Your task to perform on an android device: Go to sound settings Image 0: 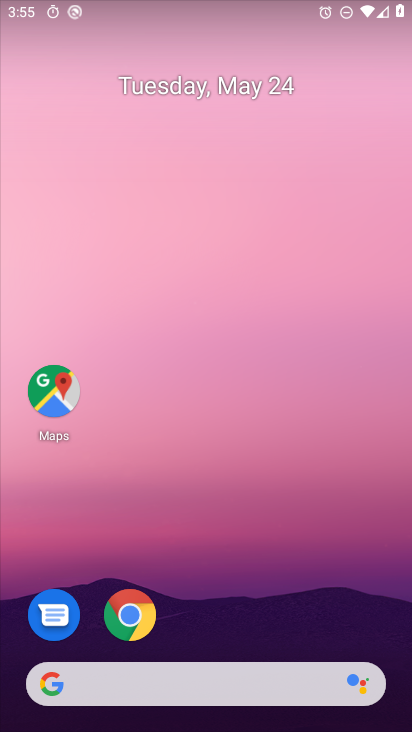
Step 0: drag from (223, 601) to (224, 279)
Your task to perform on an android device: Go to sound settings Image 1: 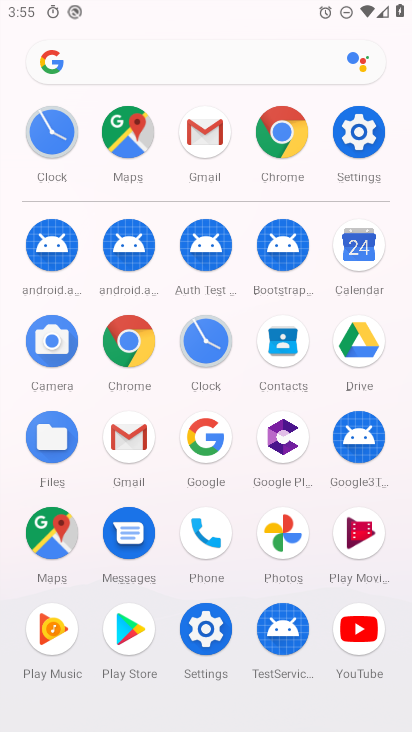
Step 1: click (368, 136)
Your task to perform on an android device: Go to sound settings Image 2: 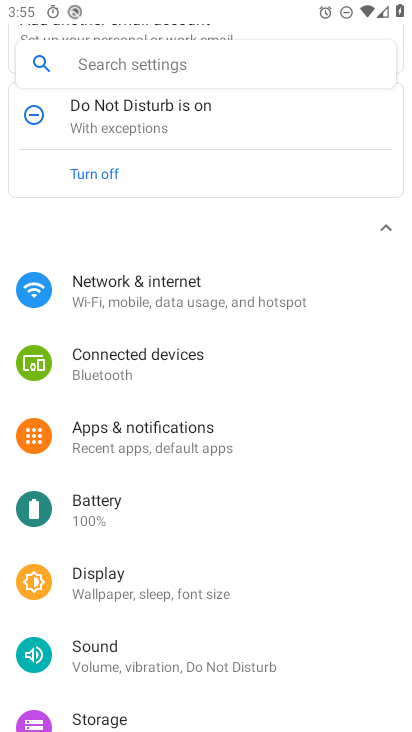
Step 2: drag from (149, 638) to (170, 309)
Your task to perform on an android device: Go to sound settings Image 3: 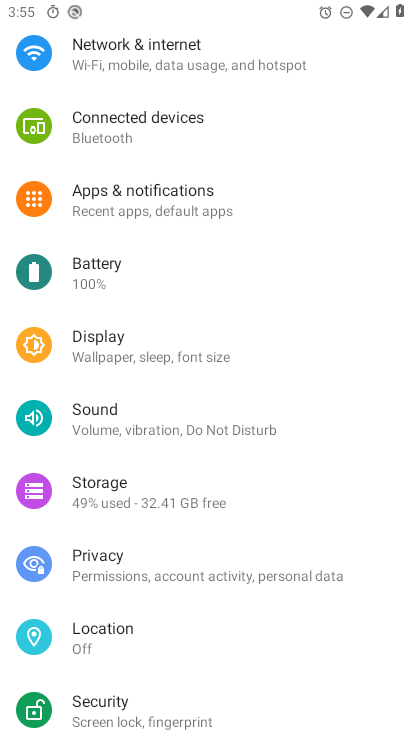
Step 3: click (128, 444)
Your task to perform on an android device: Go to sound settings Image 4: 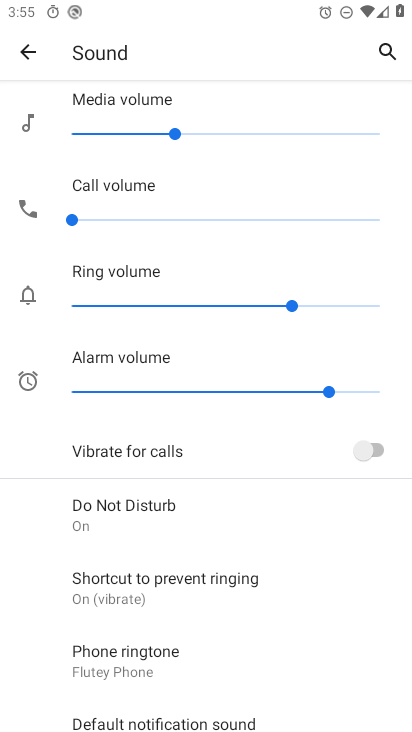
Step 4: task complete